Your task to perform on an android device: Open calendar and show me the third week of next month Image 0: 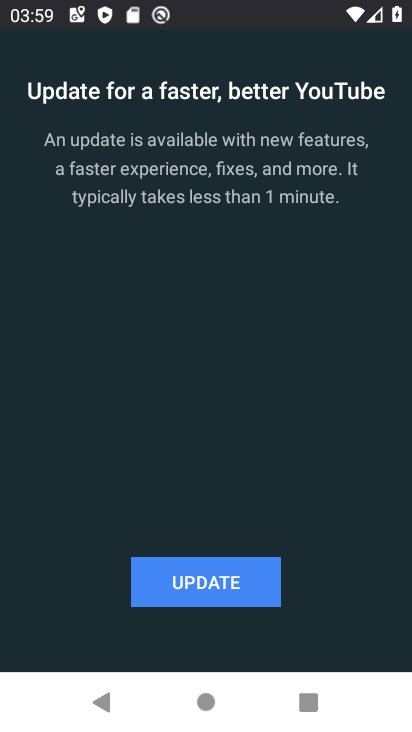
Step 0: press home button
Your task to perform on an android device: Open calendar and show me the third week of next month Image 1: 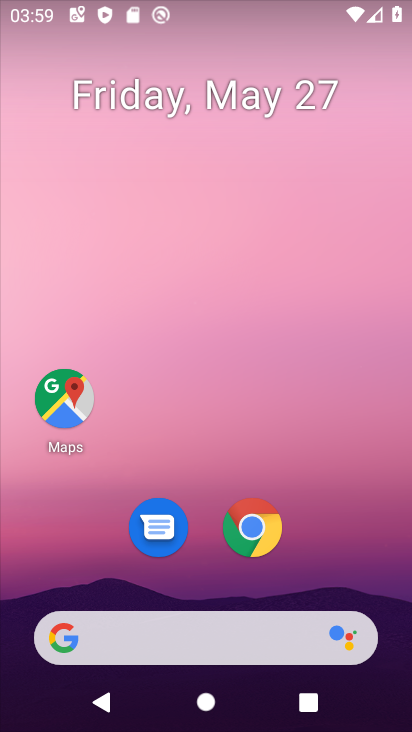
Step 1: drag from (373, 596) to (339, 127)
Your task to perform on an android device: Open calendar and show me the third week of next month Image 2: 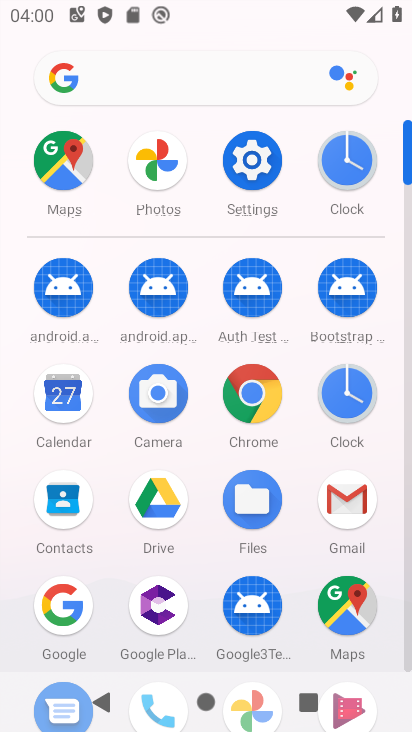
Step 2: click (73, 414)
Your task to perform on an android device: Open calendar and show me the third week of next month Image 3: 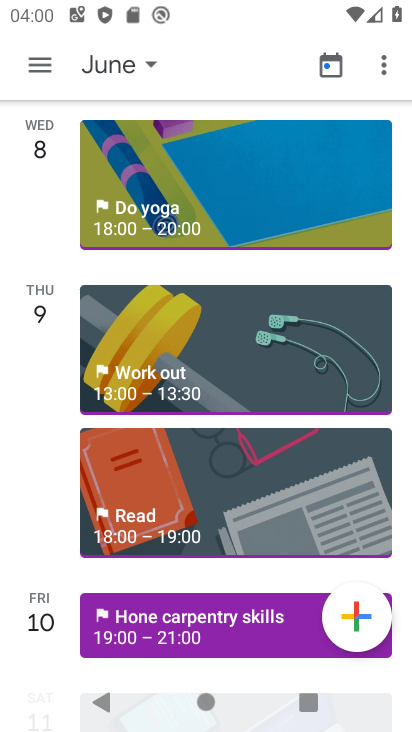
Step 3: click (161, 57)
Your task to perform on an android device: Open calendar and show me the third week of next month Image 4: 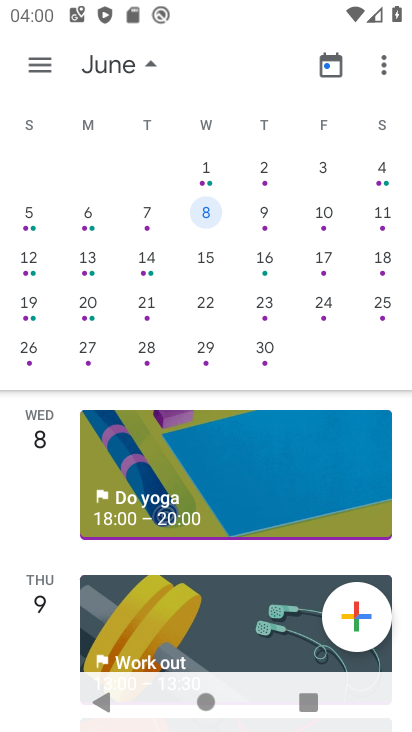
Step 4: click (216, 267)
Your task to perform on an android device: Open calendar and show me the third week of next month Image 5: 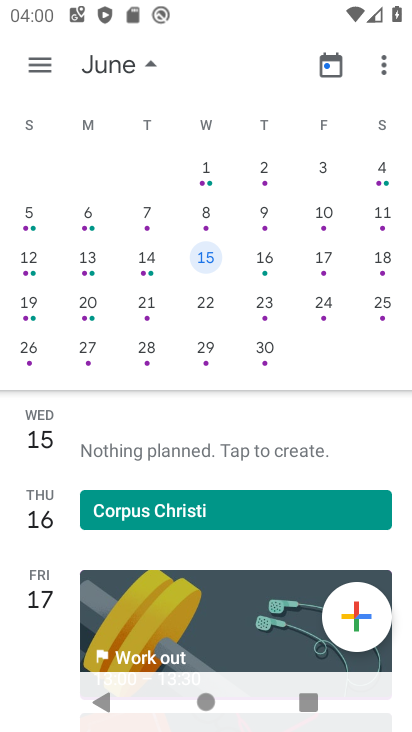
Step 5: task complete